Your task to perform on an android device: Open the calendar and show me this week's events Image 0: 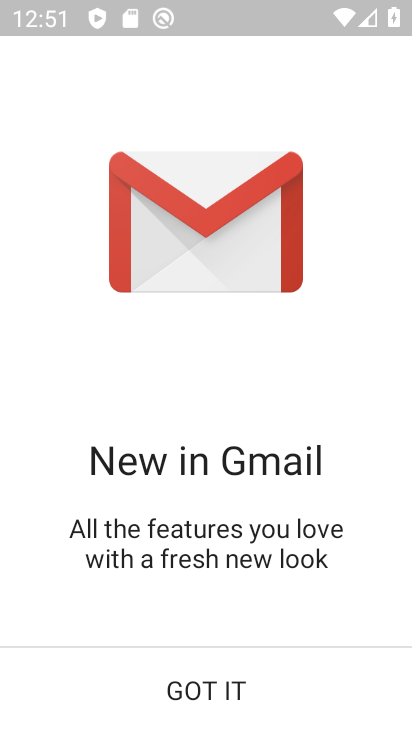
Step 0: press home button
Your task to perform on an android device: Open the calendar and show me this week's events Image 1: 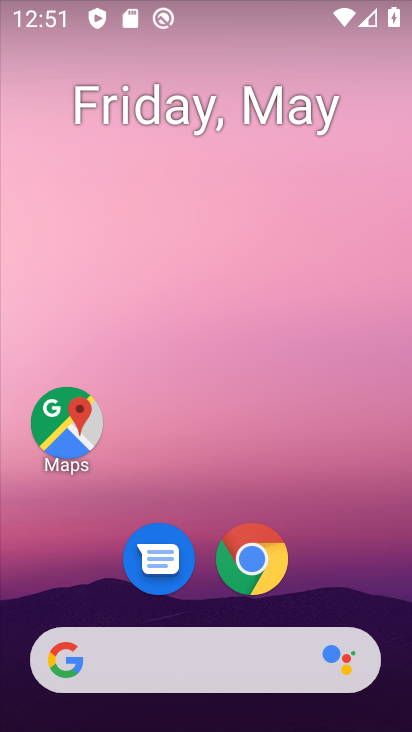
Step 1: drag from (376, 574) to (312, 190)
Your task to perform on an android device: Open the calendar and show me this week's events Image 2: 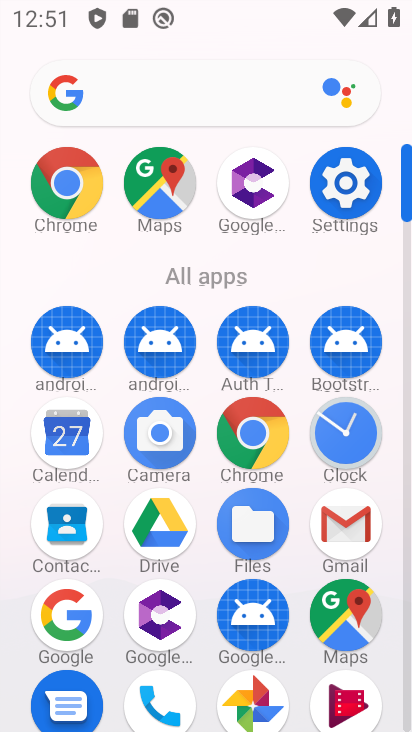
Step 2: click (77, 434)
Your task to perform on an android device: Open the calendar and show me this week's events Image 3: 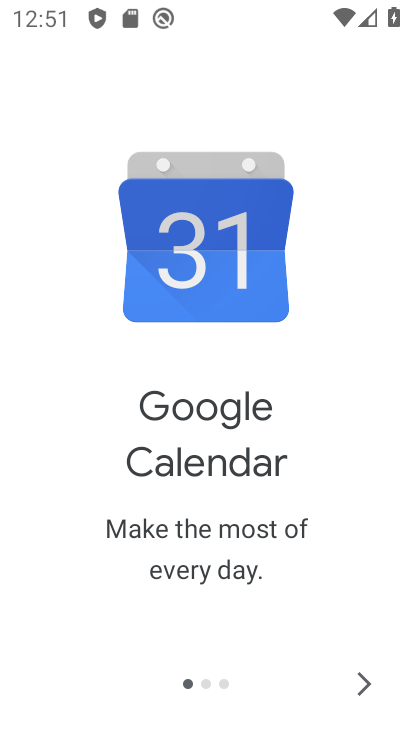
Step 3: click (364, 678)
Your task to perform on an android device: Open the calendar and show me this week's events Image 4: 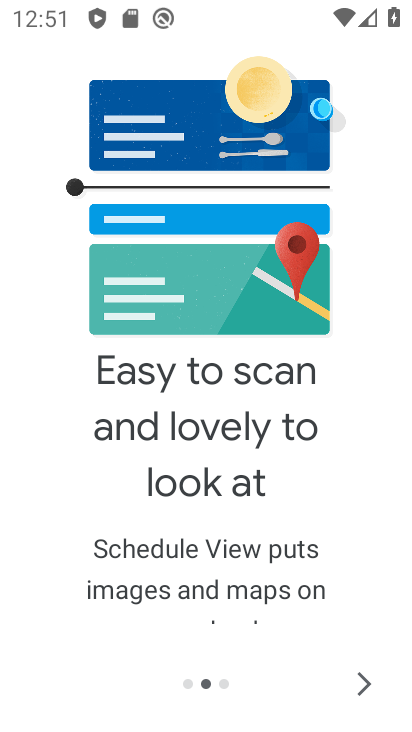
Step 4: click (365, 677)
Your task to perform on an android device: Open the calendar and show me this week's events Image 5: 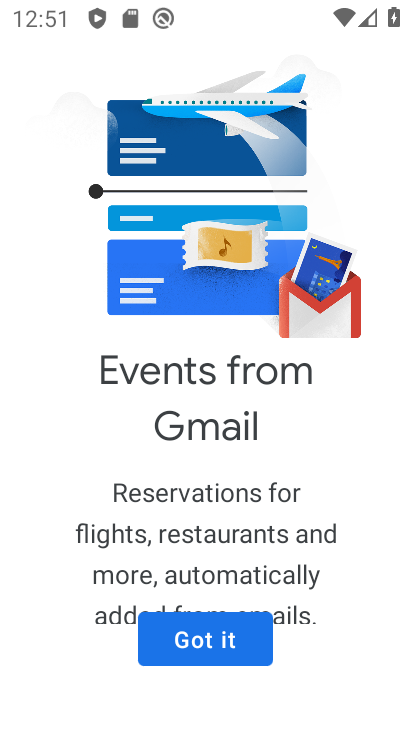
Step 5: click (252, 645)
Your task to perform on an android device: Open the calendar and show me this week's events Image 6: 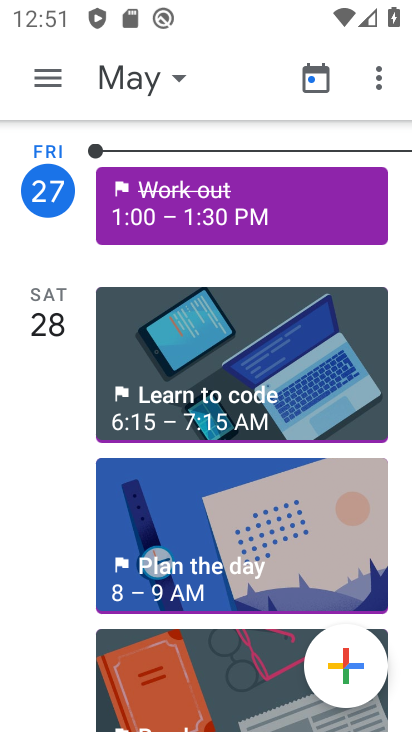
Step 6: task complete